Your task to perform on an android device: Open network settings Image 0: 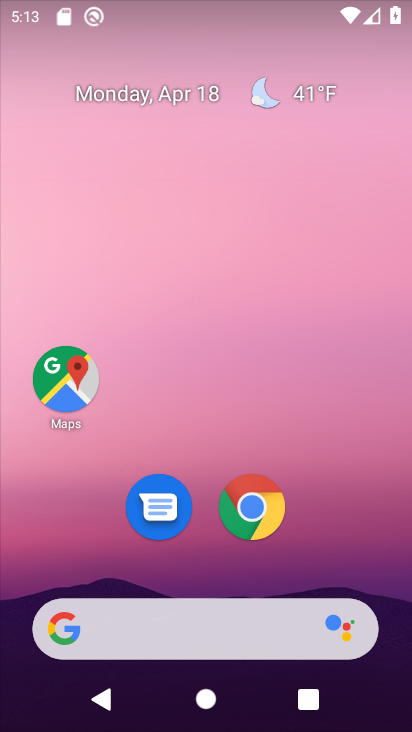
Step 0: drag from (249, 544) to (235, 67)
Your task to perform on an android device: Open network settings Image 1: 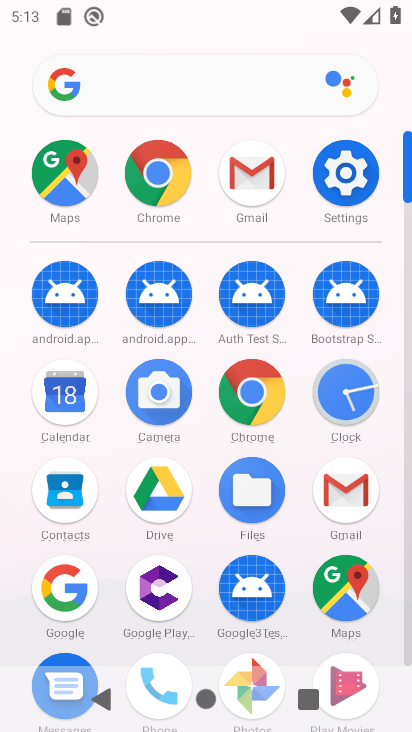
Step 1: click (339, 186)
Your task to perform on an android device: Open network settings Image 2: 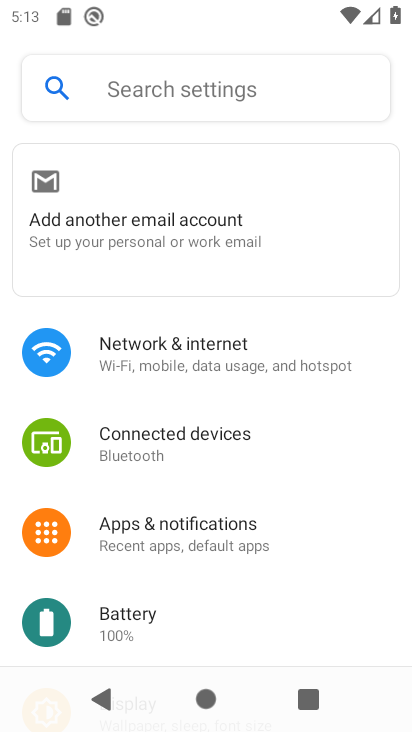
Step 2: click (206, 353)
Your task to perform on an android device: Open network settings Image 3: 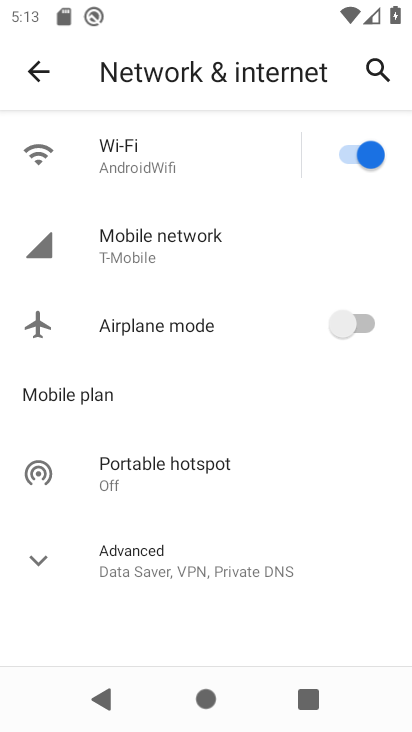
Step 3: click (172, 244)
Your task to perform on an android device: Open network settings Image 4: 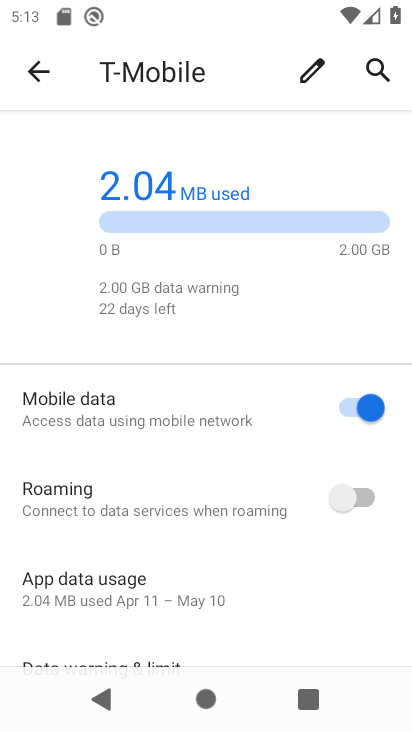
Step 4: task complete